Your task to perform on an android device: Open the calendar and show me this week's events? Image 0: 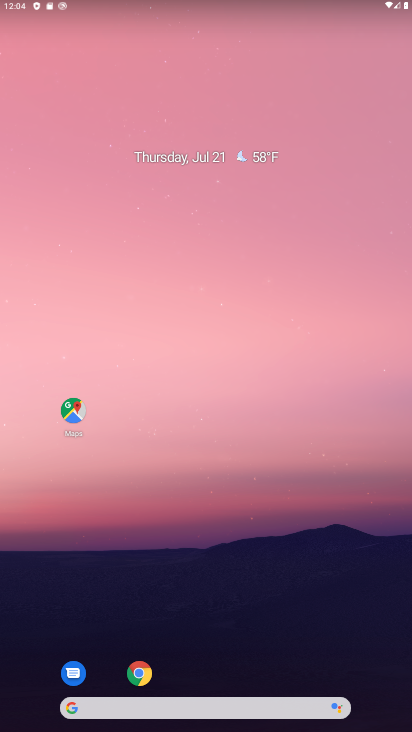
Step 0: drag from (223, 567) to (215, 170)
Your task to perform on an android device: Open the calendar and show me this week's events? Image 1: 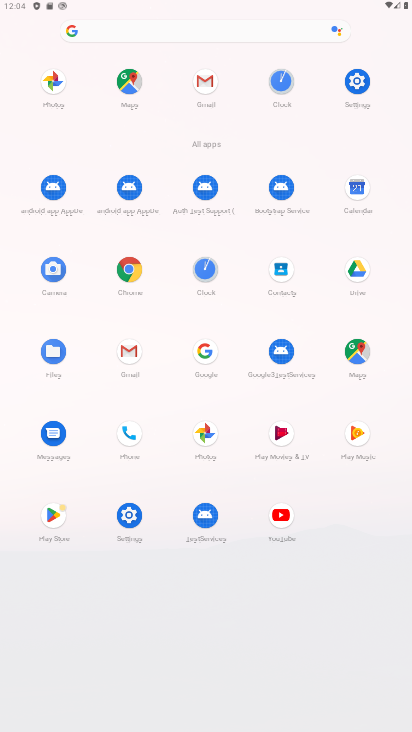
Step 1: click (356, 175)
Your task to perform on an android device: Open the calendar and show me this week's events? Image 2: 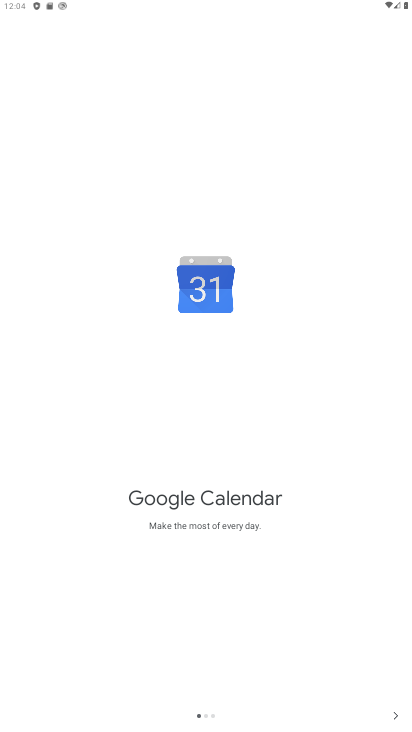
Step 2: click (387, 716)
Your task to perform on an android device: Open the calendar and show me this week's events? Image 3: 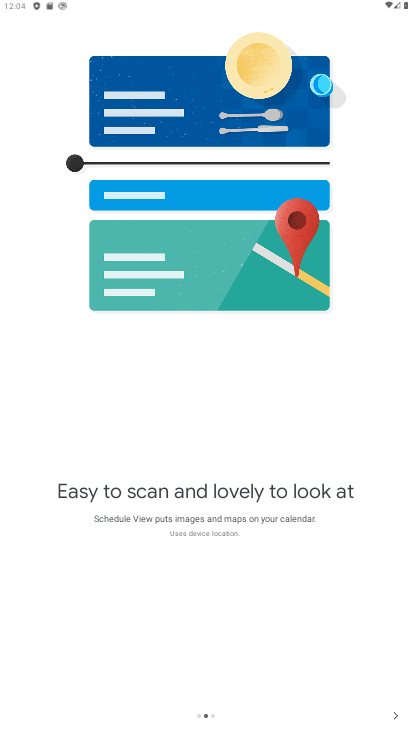
Step 3: click (387, 714)
Your task to perform on an android device: Open the calendar and show me this week's events? Image 4: 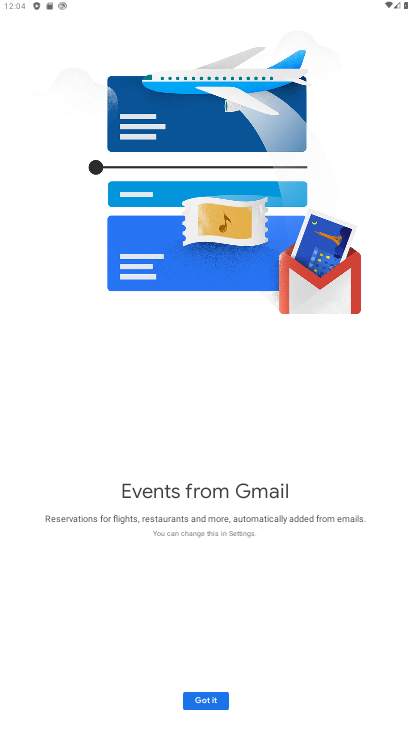
Step 4: click (213, 692)
Your task to perform on an android device: Open the calendar and show me this week's events? Image 5: 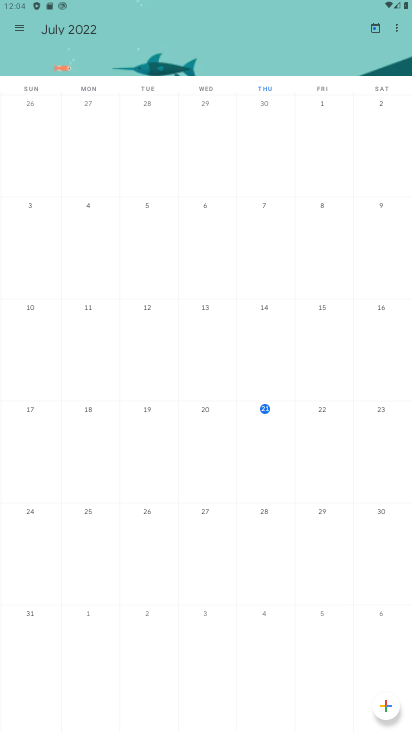
Step 5: click (25, 28)
Your task to perform on an android device: Open the calendar and show me this week's events? Image 6: 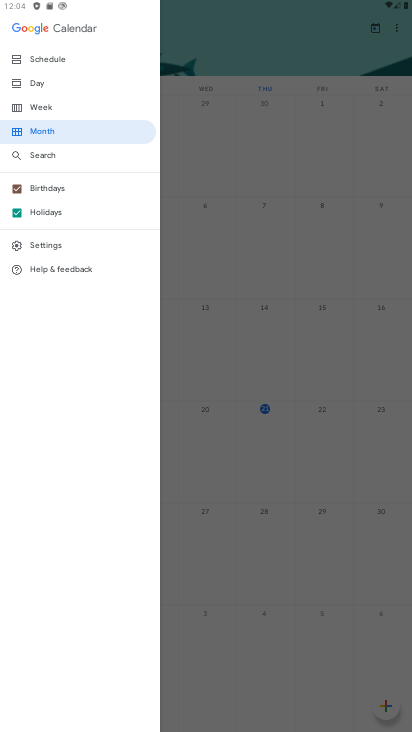
Step 6: click (46, 106)
Your task to perform on an android device: Open the calendar and show me this week's events? Image 7: 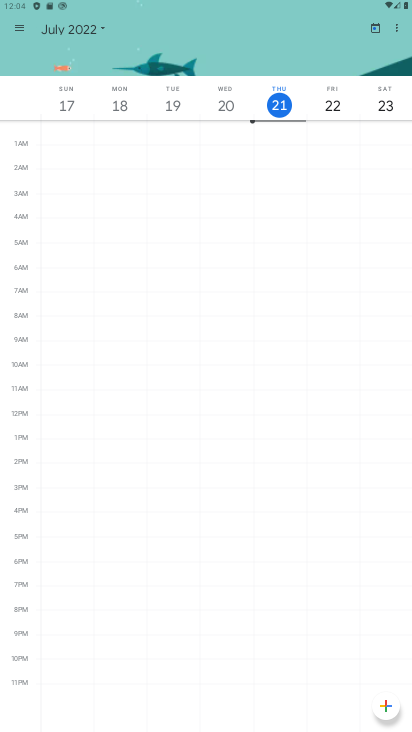
Step 7: task complete